Your task to perform on an android device: Open internet settings Image 0: 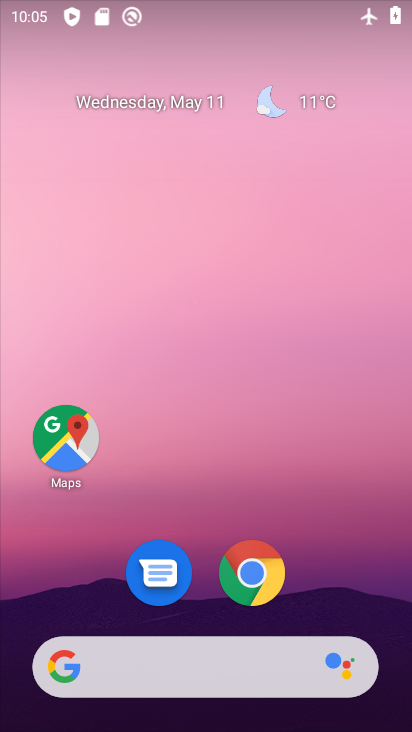
Step 0: drag from (207, 499) to (324, 11)
Your task to perform on an android device: Open internet settings Image 1: 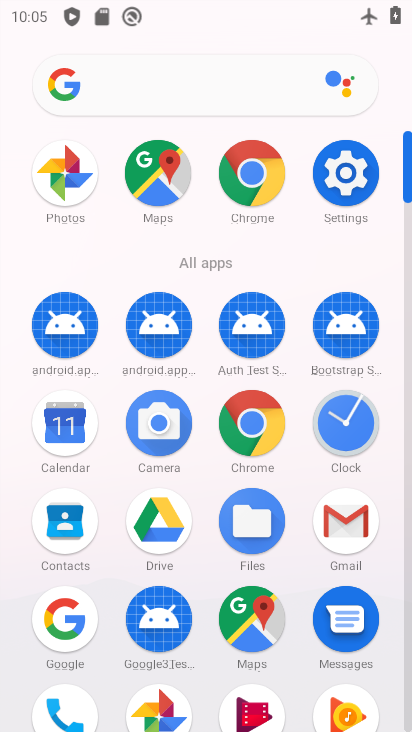
Step 1: click (340, 168)
Your task to perform on an android device: Open internet settings Image 2: 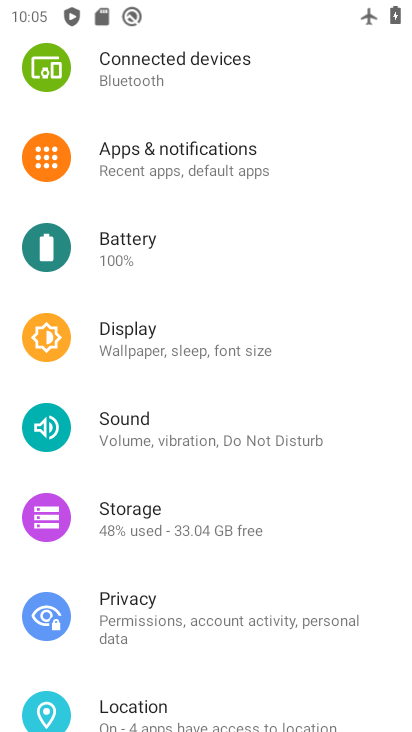
Step 2: drag from (208, 88) to (182, 595)
Your task to perform on an android device: Open internet settings Image 3: 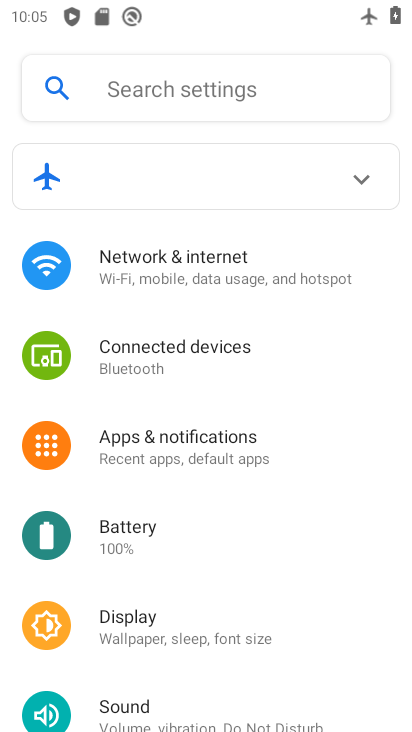
Step 3: click (237, 263)
Your task to perform on an android device: Open internet settings Image 4: 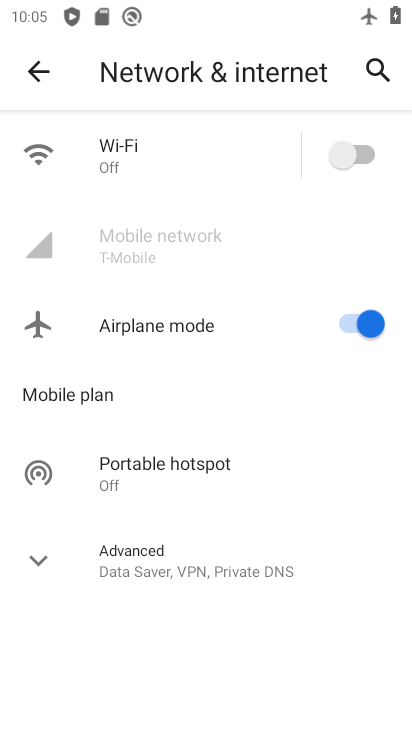
Step 4: task complete